Your task to perform on an android device: Open the web browser Image 0: 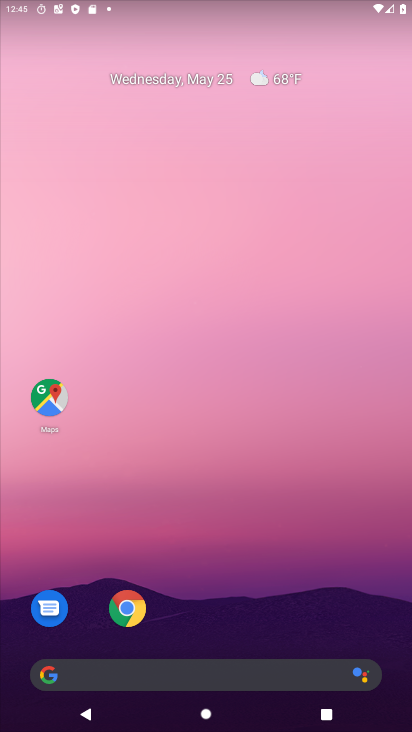
Step 0: click (138, 617)
Your task to perform on an android device: Open the web browser Image 1: 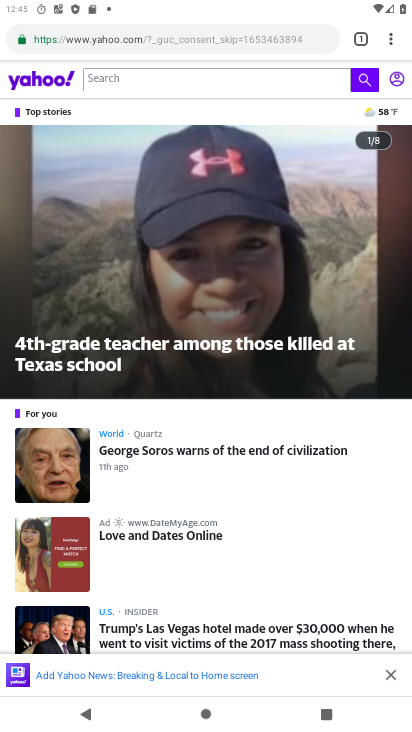
Step 1: task complete